Your task to perform on an android device: Go to Android settings Image 0: 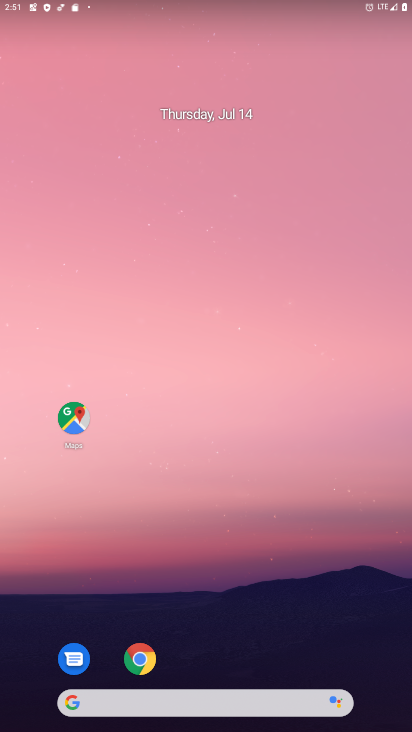
Step 0: drag from (318, 607) to (285, 4)
Your task to perform on an android device: Go to Android settings Image 1: 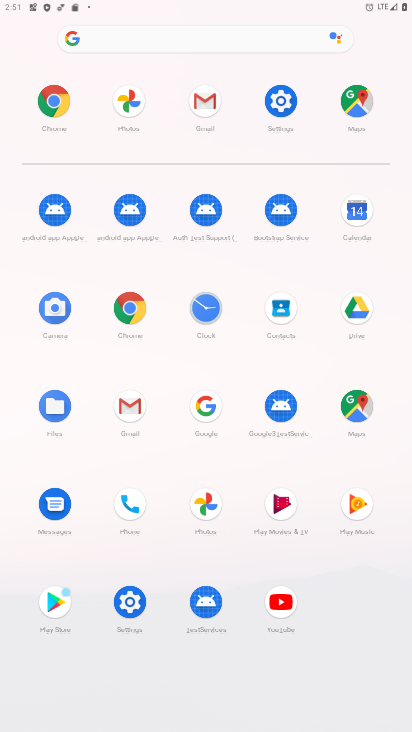
Step 1: click (274, 96)
Your task to perform on an android device: Go to Android settings Image 2: 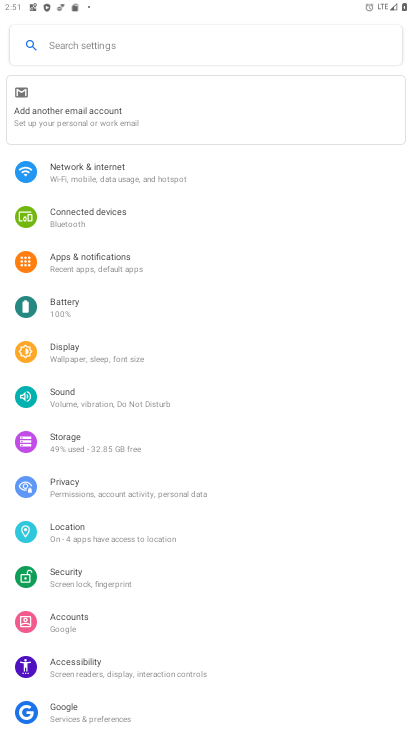
Step 2: task complete